Your task to perform on an android device: Open CNN.com Image 0: 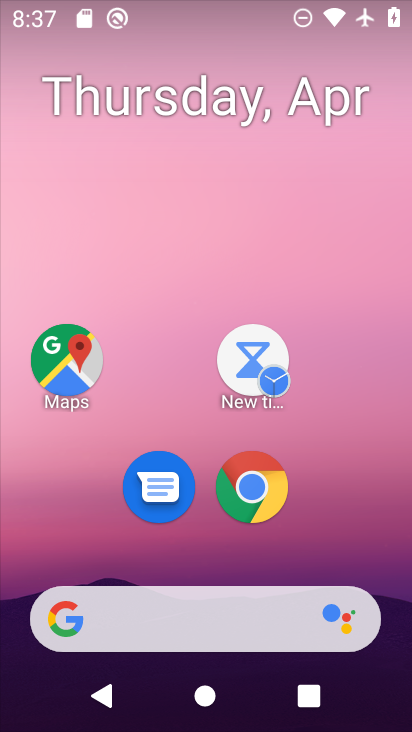
Step 0: drag from (325, 412) to (306, 94)
Your task to perform on an android device: Open CNN.com Image 1: 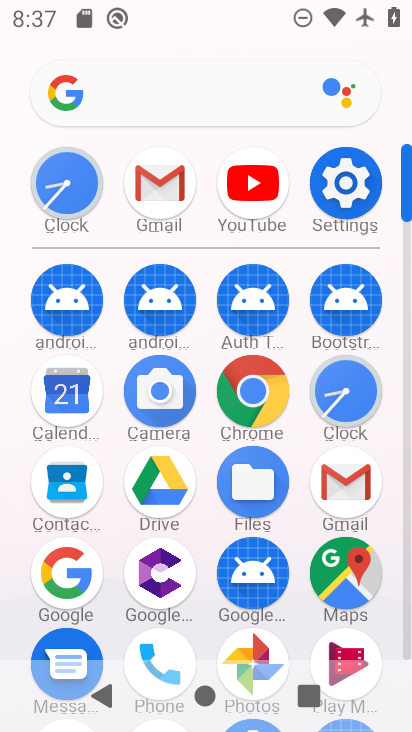
Step 1: click (254, 383)
Your task to perform on an android device: Open CNN.com Image 2: 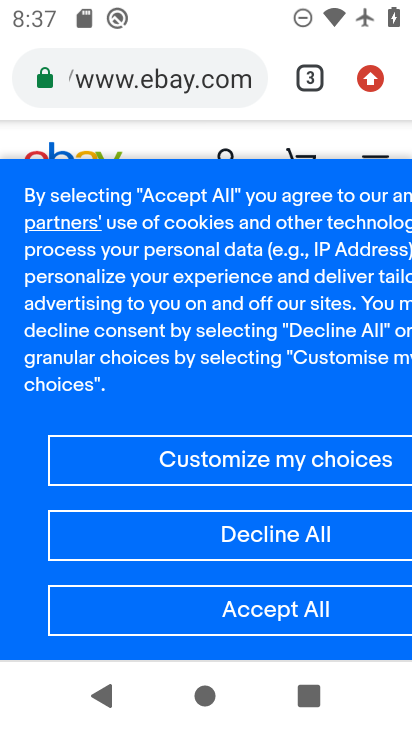
Step 2: click (317, 77)
Your task to perform on an android device: Open CNN.com Image 3: 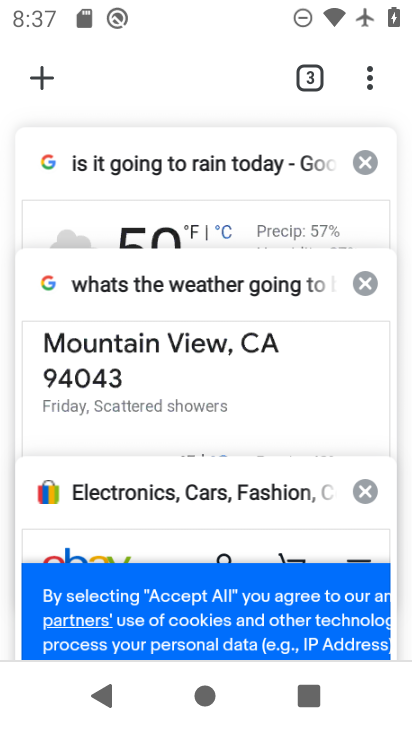
Step 3: click (44, 75)
Your task to perform on an android device: Open CNN.com Image 4: 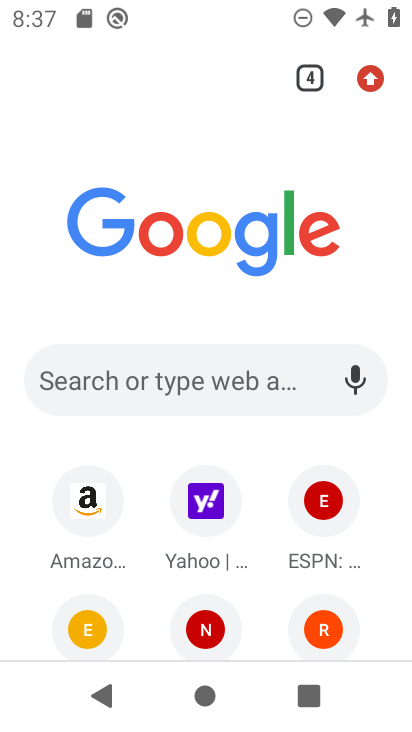
Step 4: click (168, 382)
Your task to perform on an android device: Open CNN.com Image 5: 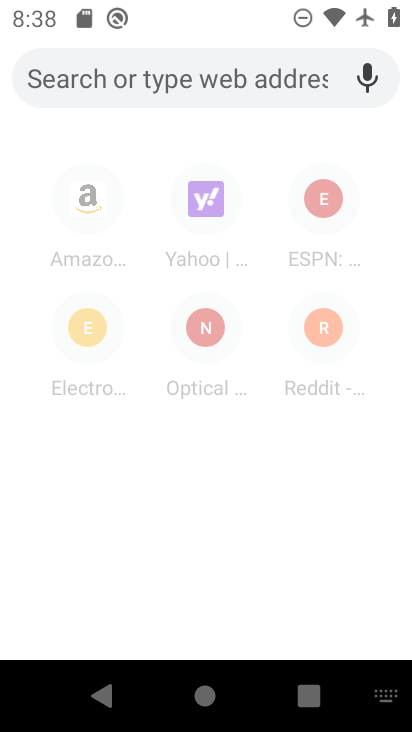
Step 5: type "cnn.com"
Your task to perform on an android device: Open CNN.com Image 6: 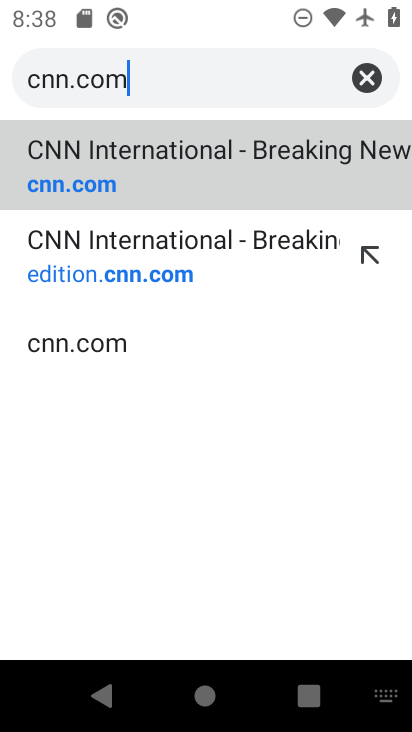
Step 6: click (145, 188)
Your task to perform on an android device: Open CNN.com Image 7: 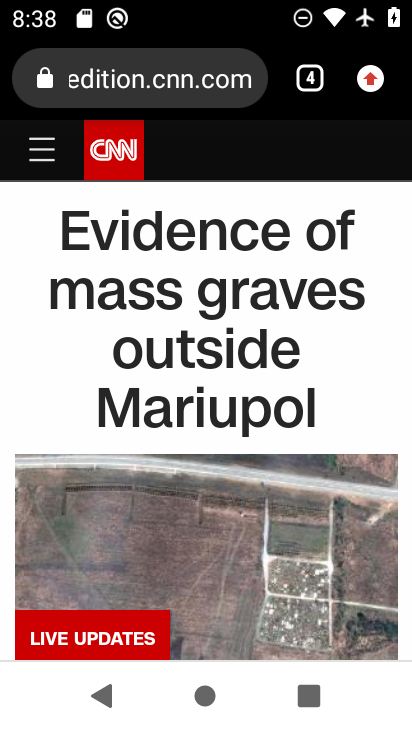
Step 7: task complete